Your task to perform on an android device: Open Google Maps and go to "Timeline" Image 0: 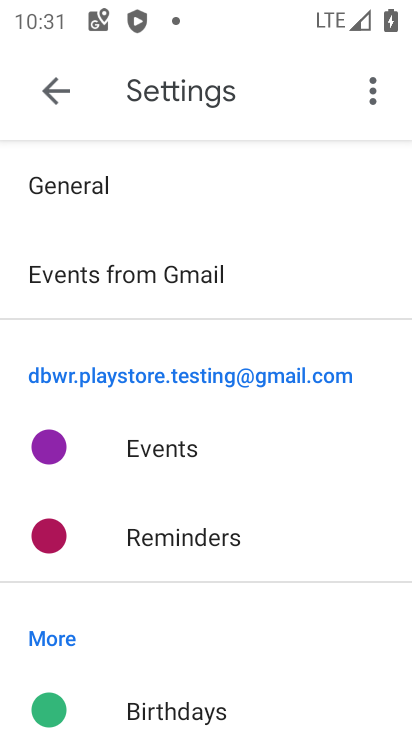
Step 0: press home button
Your task to perform on an android device: Open Google Maps and go to "Timeline" Image 1: 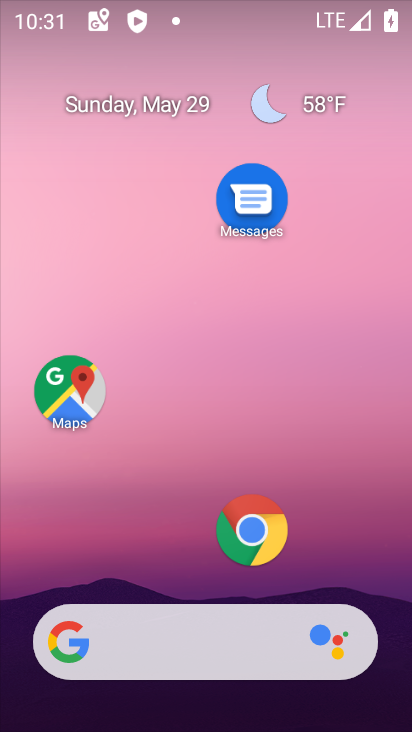
Step 1: click (77, 353)
Your task to perform on an android device: Open Google Maps and go to "Timeline" Image 2: 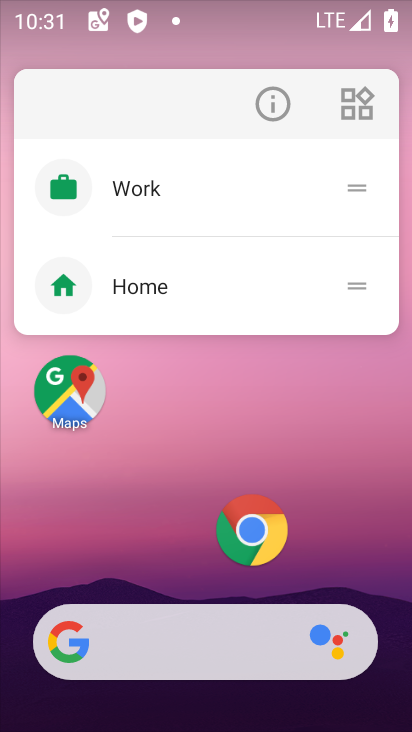
Step 2: click (80, 355)
Your task to perform on an android device: Open Google Maps and go to "Timeline" Image 3: 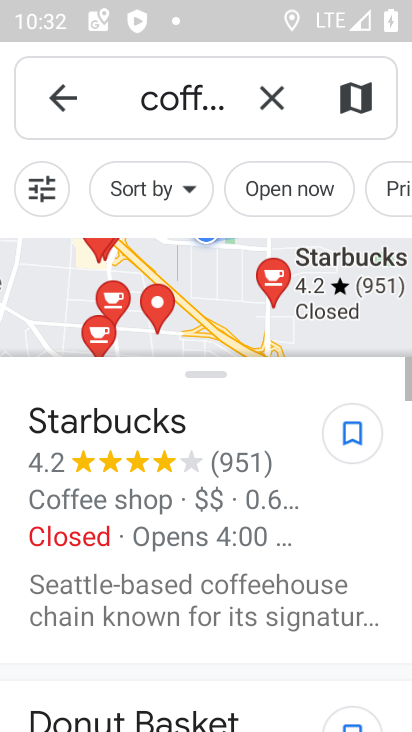
Step 3: click (63, 105)
Your task to perform on an android device: Open Google Maps and go to "Timeline" Image 4: 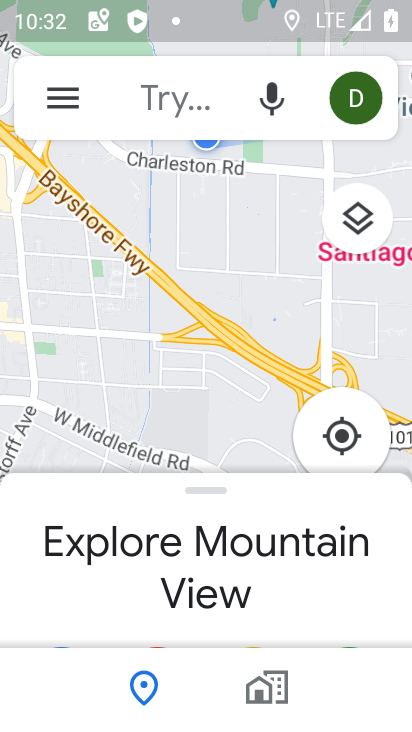
Step 4: click (67, 83)
Your task to perform on an android device: Open Google Maps and go to "Timeline" Image 5: 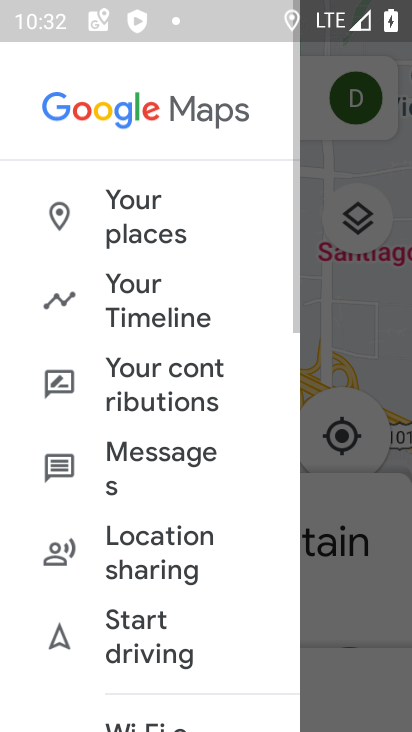
Step 5: click (136, 299)
Your task to perform on an android device: Open Google Maps and go to "Timeline" Image 6: 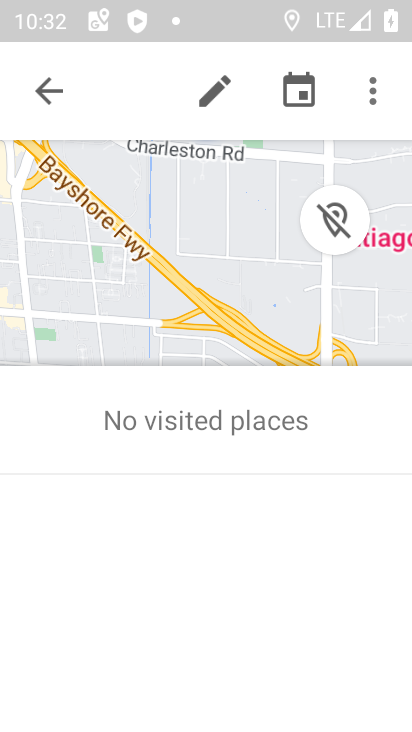
Step 6: task complete